Your task to perform on an android device: move an email to a new category in the gmail app Image 0: 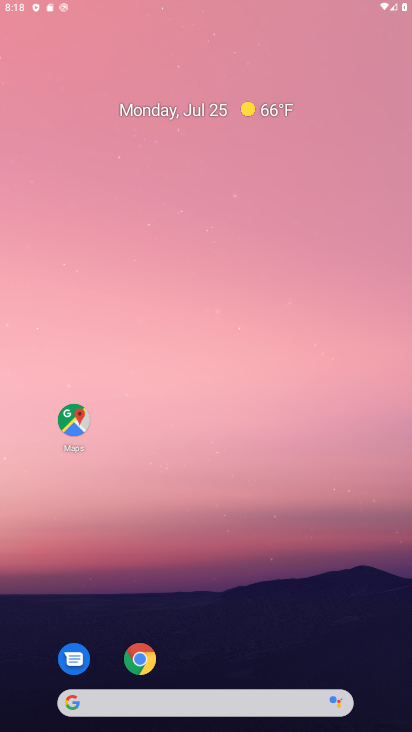
Step 0: click (233, 19)
Your task to perform on an android device: move an email to a new category in the gmail app Image 1: 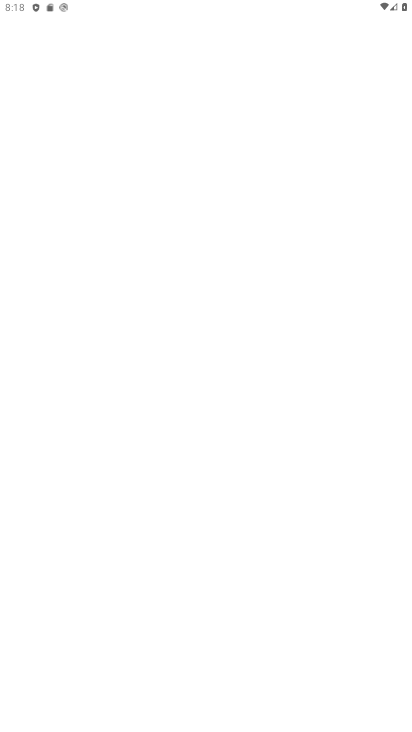
Step 1: drag from (252, 454) to (286, 25)
Your task to perform on an android device: move an email to a new category in the gmail app Image 2: 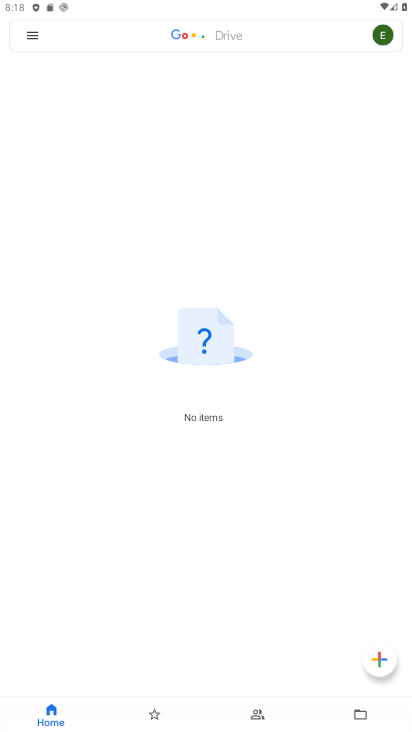
Step 2: drag from (262, 461) to (232, 161)
Your task to perform on an android device: move an email to a new category in the gmail app Image 3: 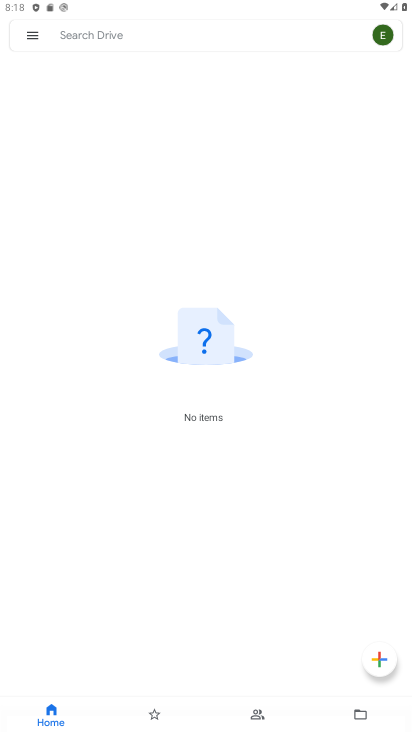
Step 3: press back button
Your task to perform on an android device: move an email to a new category in the gmail app Image 4: 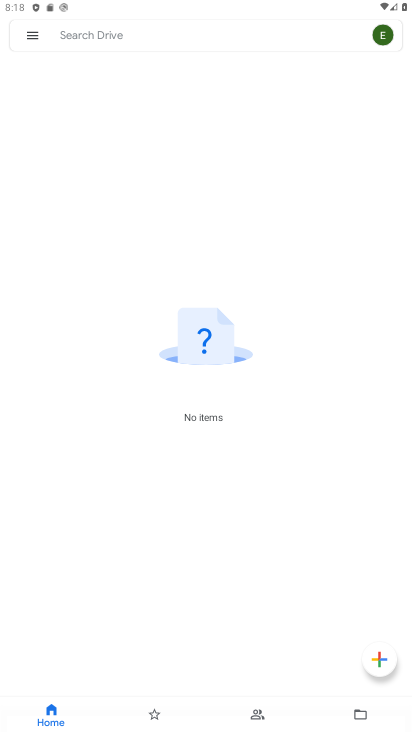
Step 4: press back button
Your task to perform on an android device: move an email to a new category in the gmail app Image 5: 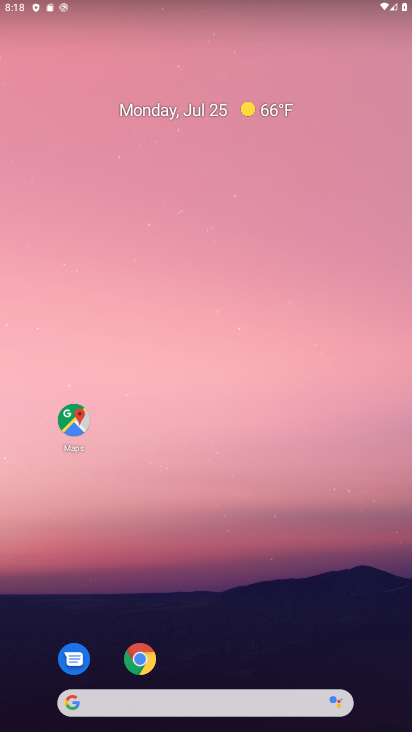
Step 5: drag from (227, 617) to (222, 212)
Your task to perform on an android device: move an email to a new category in the gmail app Image 6: 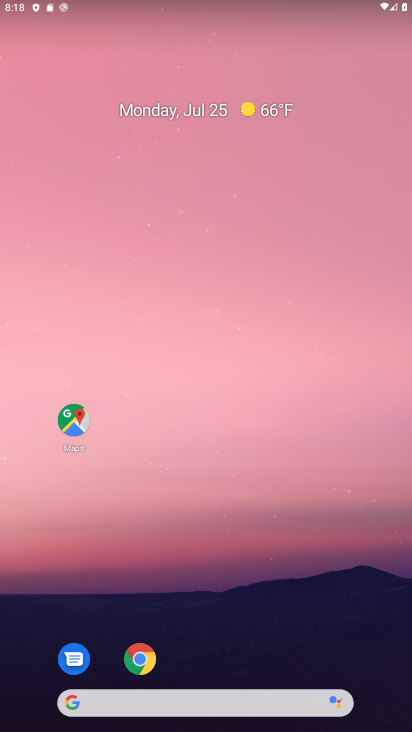
Step 6: drag from (222, 669) to (222, 259)
Your task to perform on an android device: move an email to a new category in the gmail app Image 7: 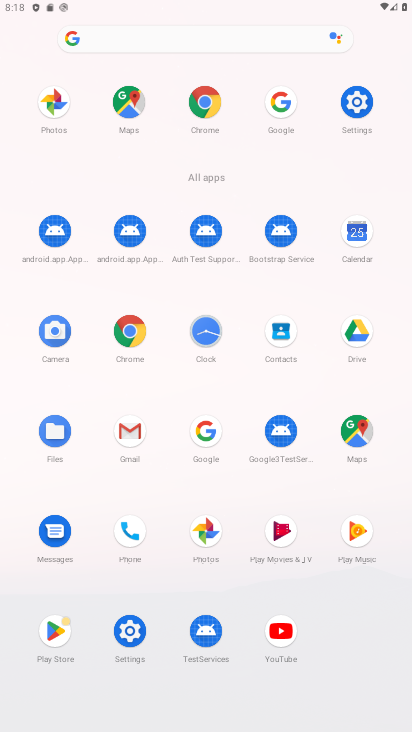
Step 7: drag from (222, 412) to (222, 150)
Your task to perform on an android device: move an email to a new category in the gmail app Image 8: 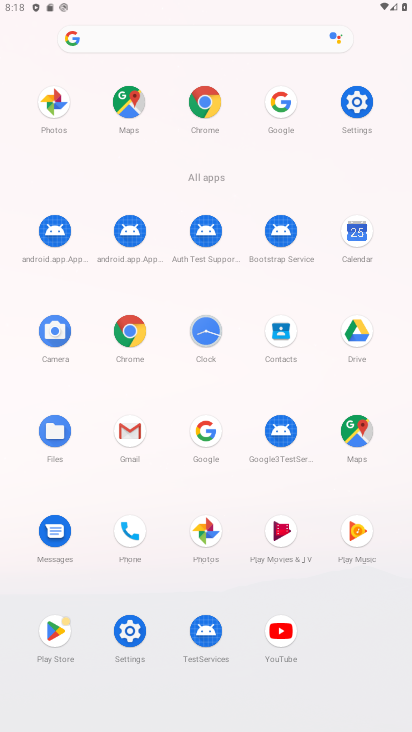
Step 8: click (142, 424)
Your task to perform on an android device: move an email to a new category in the gmail app Image 9: 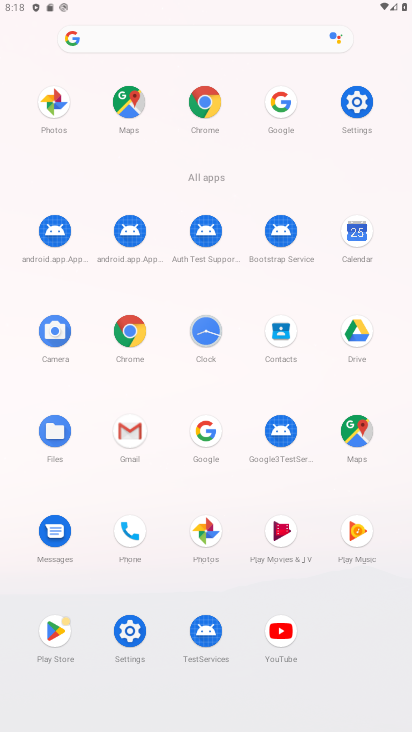
Step 9: click (137, 425)
Your task to perform on an android device: move an email to a new category in the gmail app Image 10: 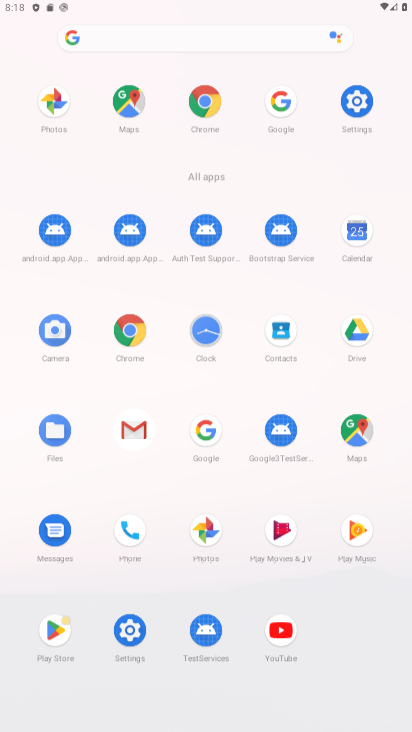
Step 10: click (140, 428)
Your task to perform on an android device: move an email to a new category in the gmail app Image 11: 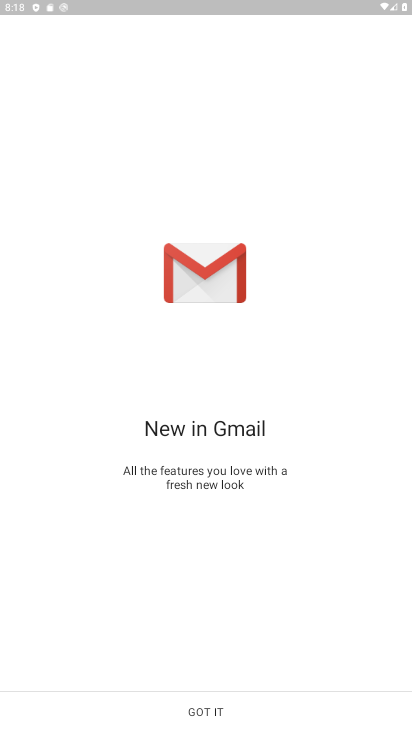
Step 11: click (196, 708)
Your task to perform on an android device: move an email to a new category in the gmail app Image 12: 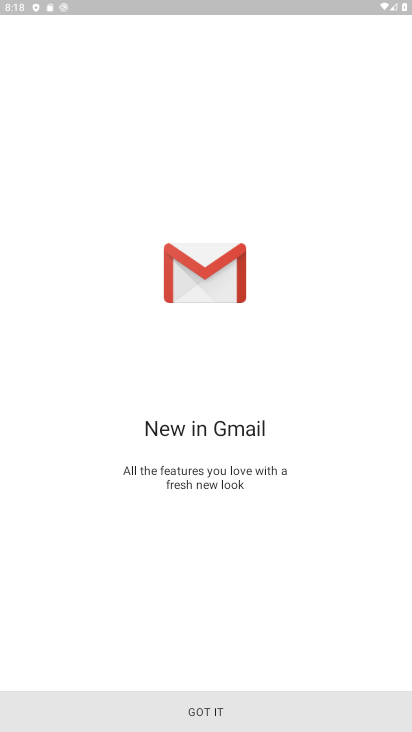
Step 12: click (203, 712)
Your task to perform on an android device: move an email to a new category in the gmail app Image 13: 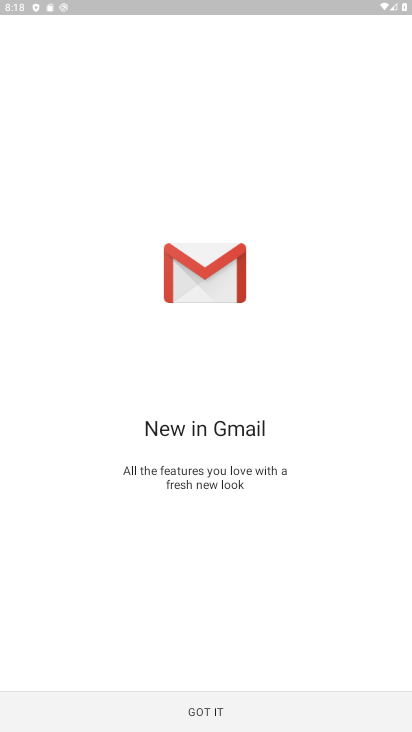
Step 13: click (203, 714)
Your task to perform on an android device: move an email to a new category in the gmail app Image 14: 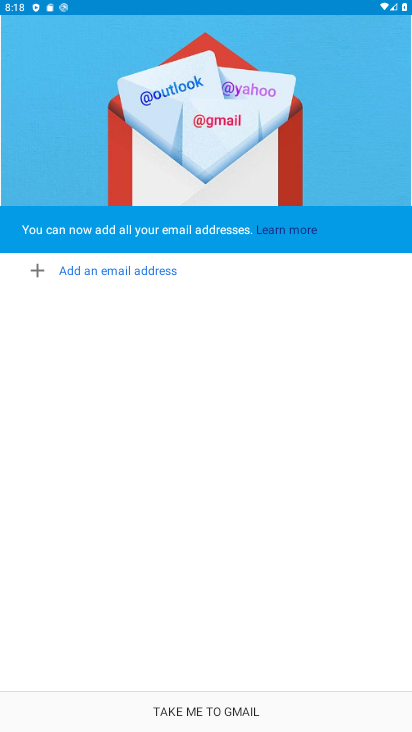
Step 14: click (206, 711)
Your task to perform on an android device: move an email to a new category in the gmail app Image 15: 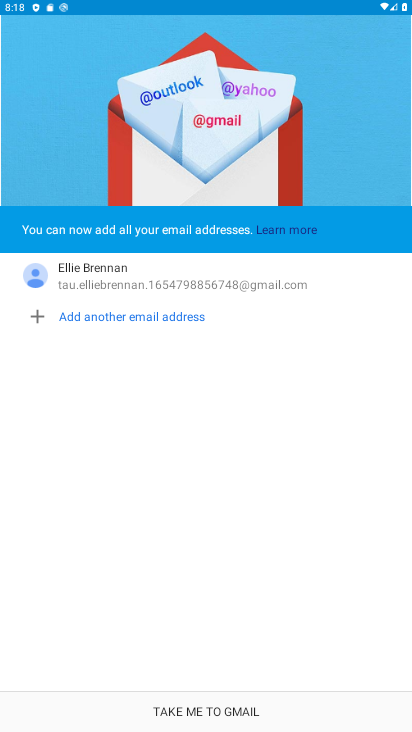
Step 15: click (207, 710)
Your task to perform on an android device: move an email to a new category in the gmail app Image 16: 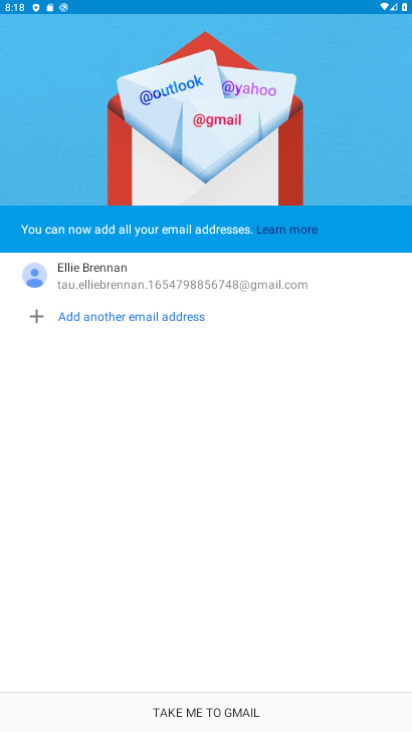
Step 16: click (207, 710)
Your task to perform on an android device: move an email to a new category in the gmail app Image 17: 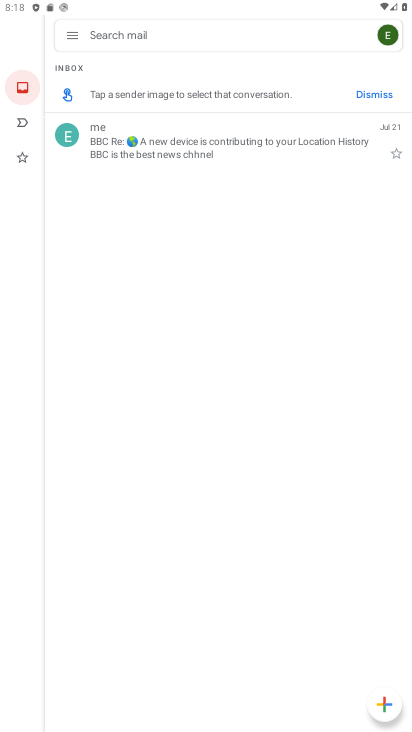
Step 17: click (204, 144)
Your task to perform on an android device: move an email to a new category in the gmail app Image 18: 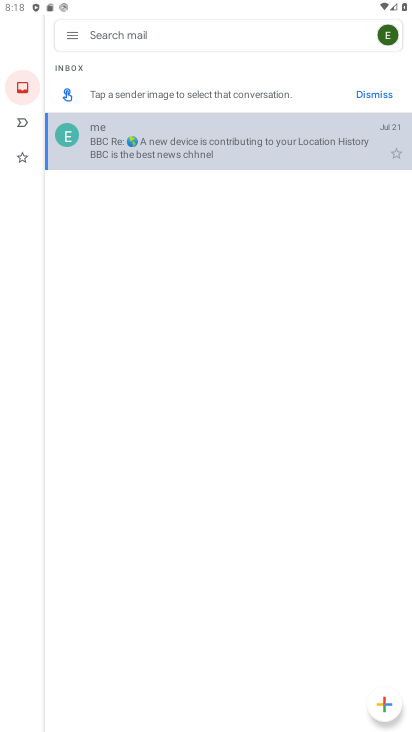
Step 18: click (389, 153)
Your task to perform on an android device: move an email to a new category in the gmail app Image 19: 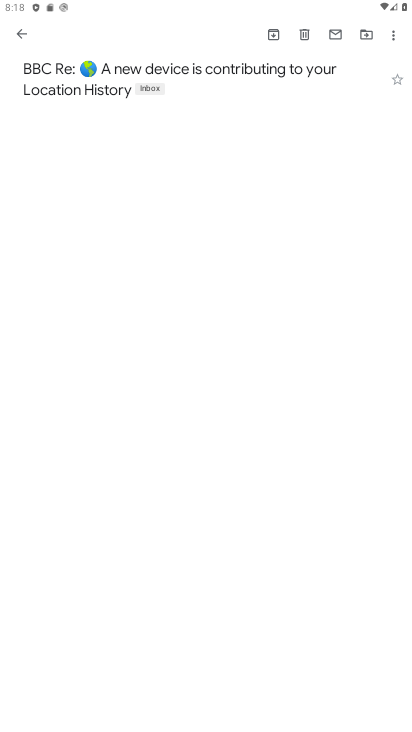
Step 19: click (391, 153)
Your task to perform on an android device: move an email to a new category in the gmail app Image 20: 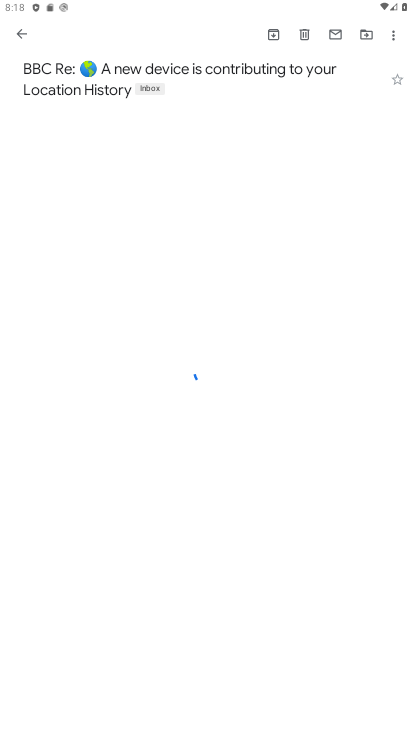
Step 20: click (394, 81)
Your task to perform on an android device: move an email to a new category in the gmail app Image 21: 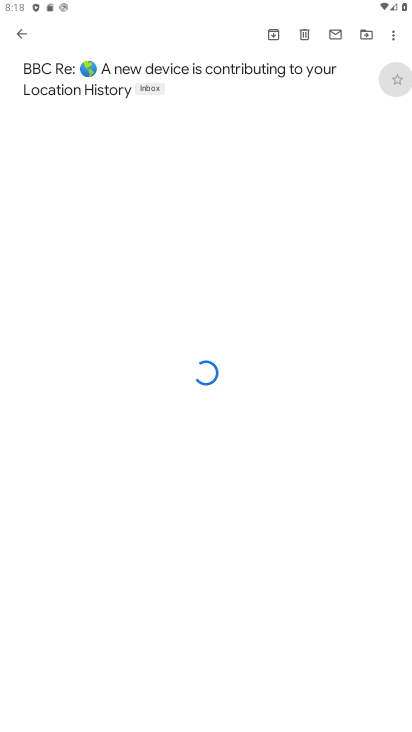
Step 21: click (391, 74)
Your task to perform on an android device: move an email to a new category in the gmail app Image 22: 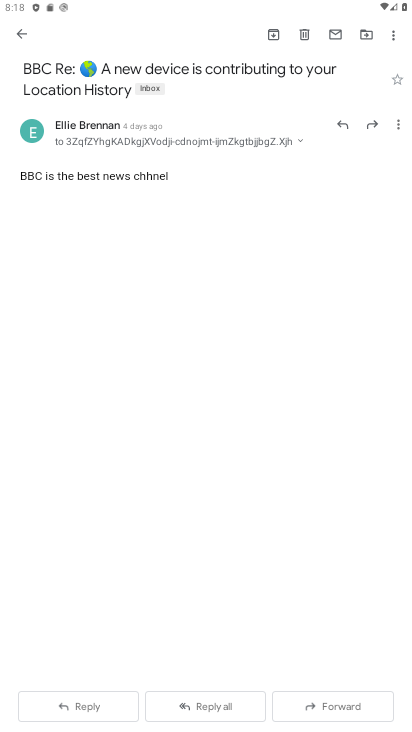
Step 22: click (398, 78)
Your task to perform on an android device: move an email to a new category in the gmail app Image 23: 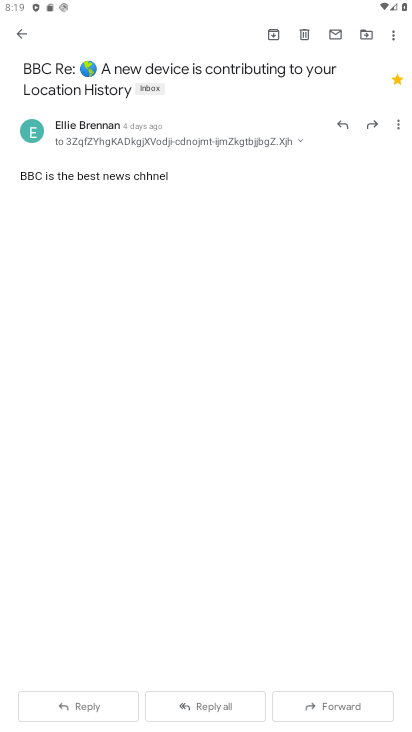
Step 23: click (395, 117)
Your task to perform on an android device: move an email to a new category in the gmail app Image 24: 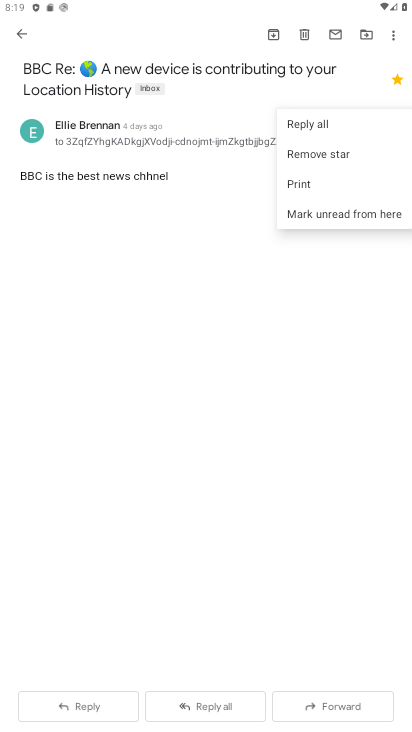
Step 24: click (396, 79)
Your task to perform on an android device: move an email to a new category in the gmail app Image 25: 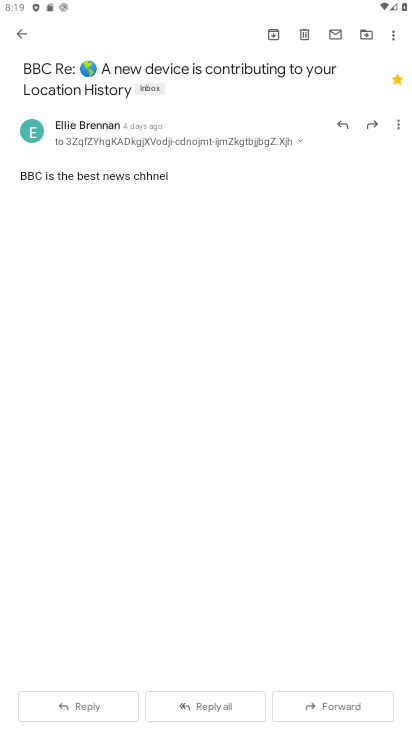
Step 25: click (402, 76)
Your task to perform on an android device: move an email to a new category in the gmail app Image 26: 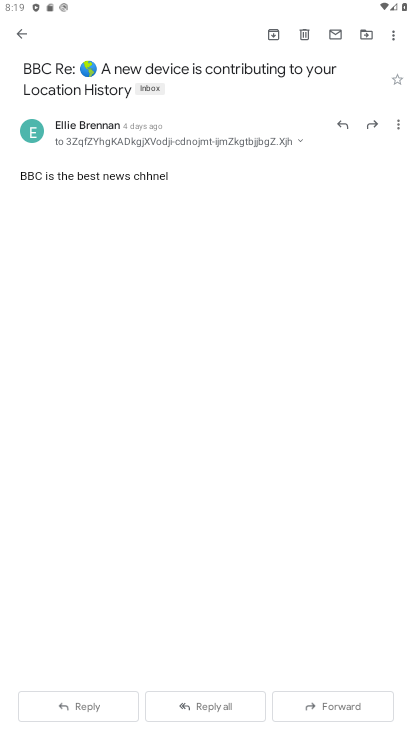
Step 26: click (399, 127)
Your task to perform on an android device: move an email to a new category in the gmail app Image 27: 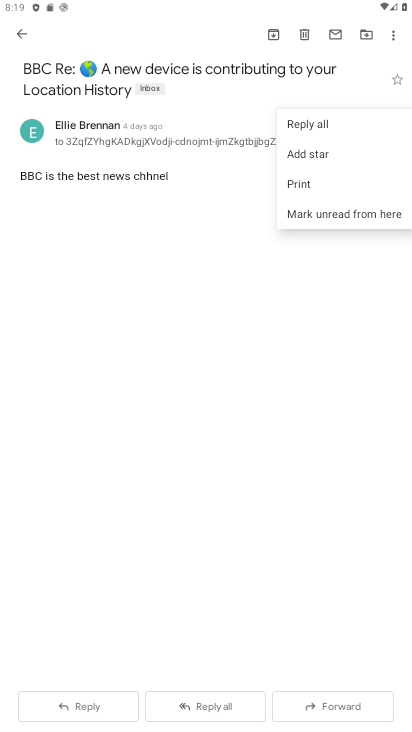
Step 27: click (286, 285)
Your task to perform on an android device: move an email to a new category in the gmail app Image 28: 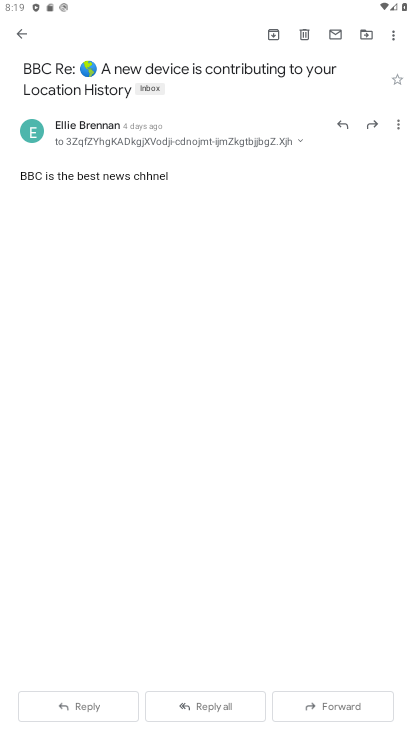
Step 28: click (388, 29)
Your task to perform on an android device: move an email to a new category in the gmail app Image 29: 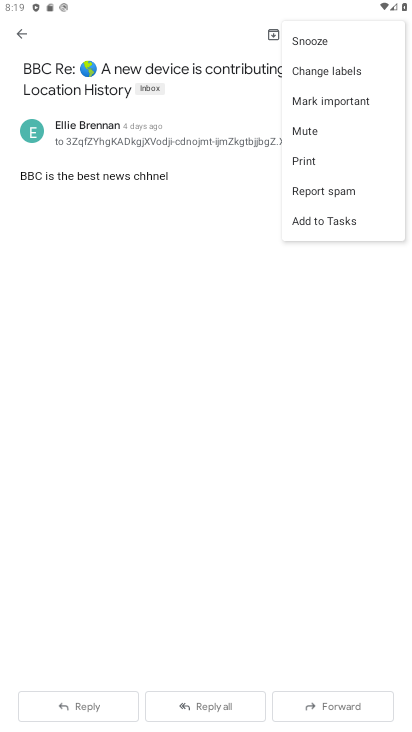
Step 29: click (264, 210)
Your task to perform on an android device: move an email to a new category in the gmail app Image 30: 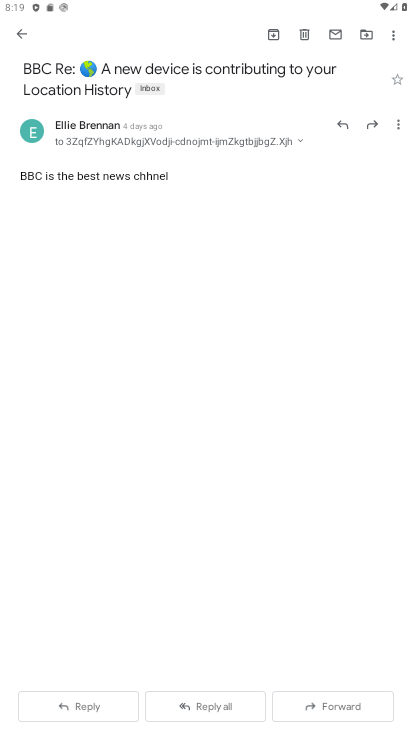
Step 30: click (390, 80)
Your task to perform on an android device: move an email to a new category in the gmail app Image 31: 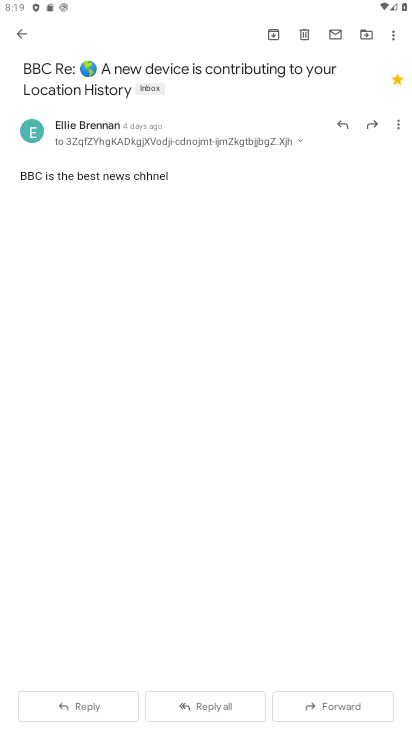
Step 31: task complete